Your task to perform on an android device: Open Amazon Image 0: 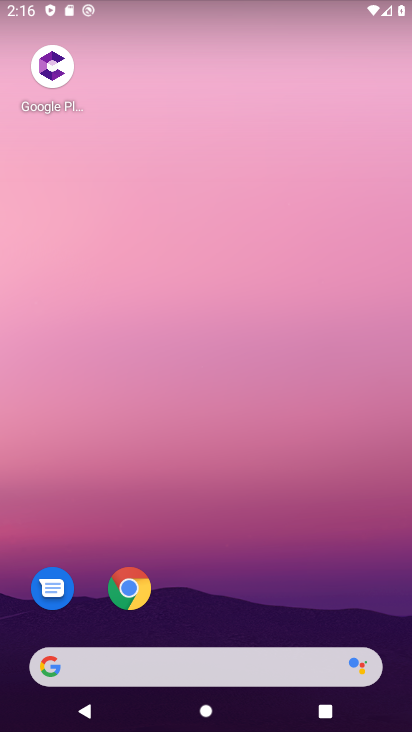
Step 0: drag from (277, 565) to (312, 163)
Your task to perform on an android device: Open Amazon Image 1: 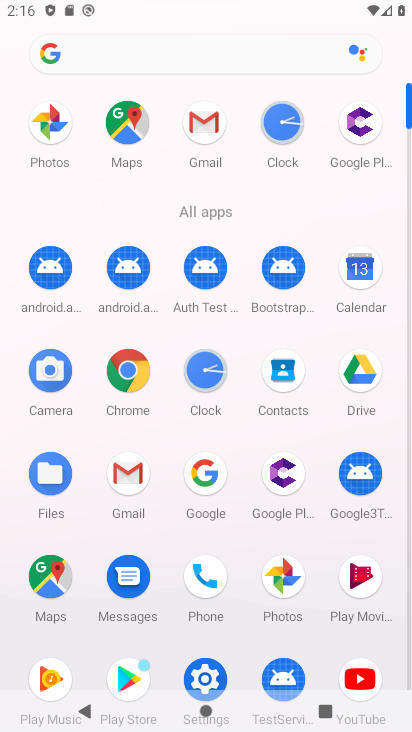
Step 1: click (123, 365)
Your task to perform on an android device: Open Amazon Image 2: 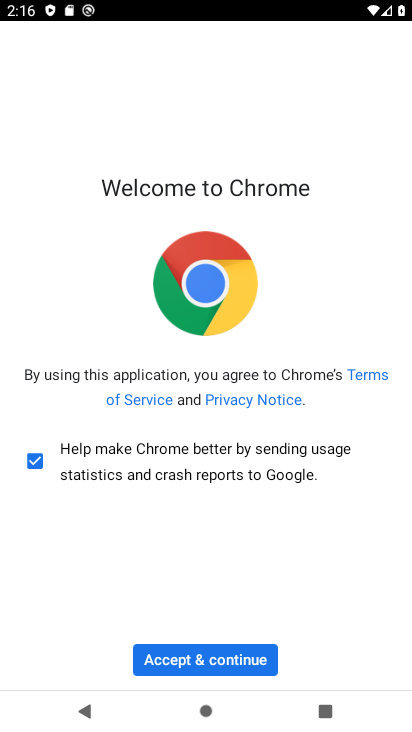
Step 2: click (197, 657)
Your task to perform on an android device: Open Amazon Image 3: 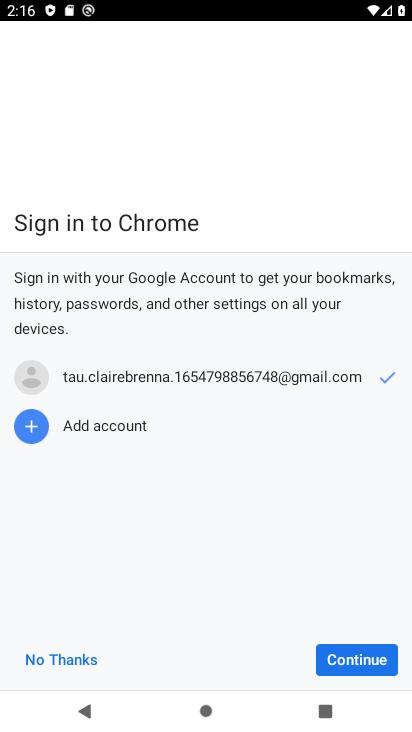
Step 3: click (74, 664)
Your task to perform on an android device: Open Amazon Image 4: 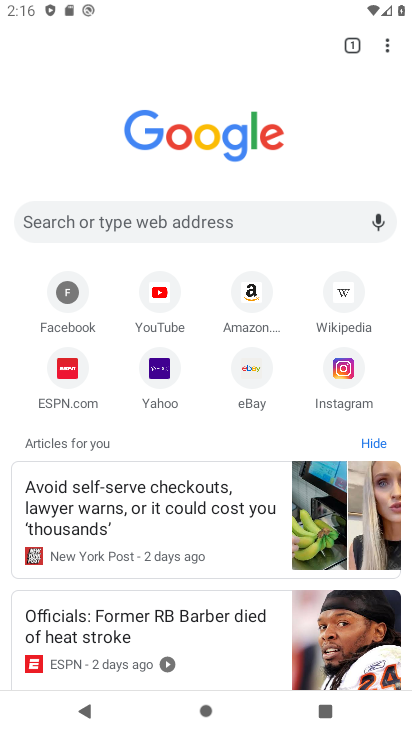
Step 4: click (255, 291)
Your task to perform on an android device: Open Amazon Image 5: 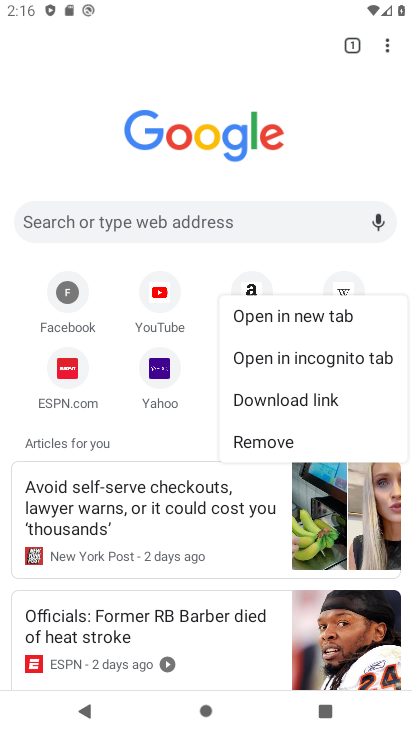
Step 5: click (221, 261)
Your task to perform on an android device: Open Amazon Image 6: 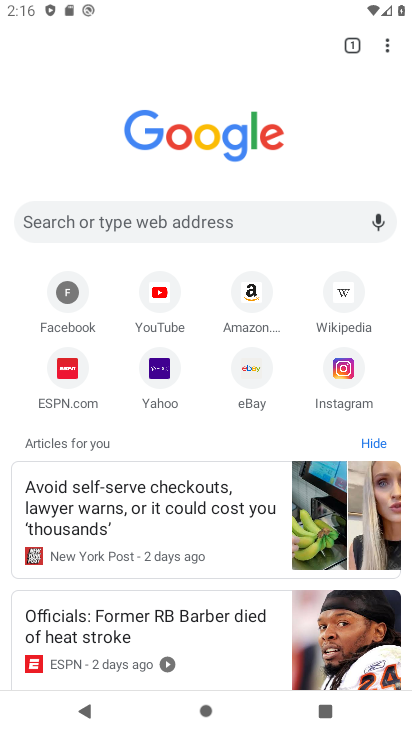
Step 6: click (242, 293)
Your task to perform on an android device: Open Amazon Image 7: 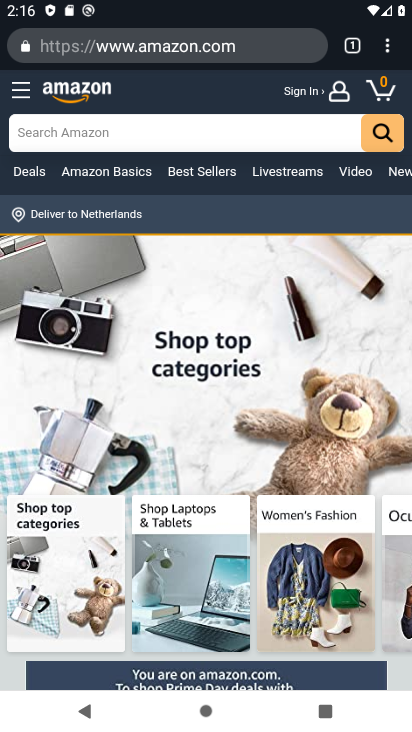
Step 7: task complete